Your task to perform on an android device: Go to Yahoo.com Image 0: 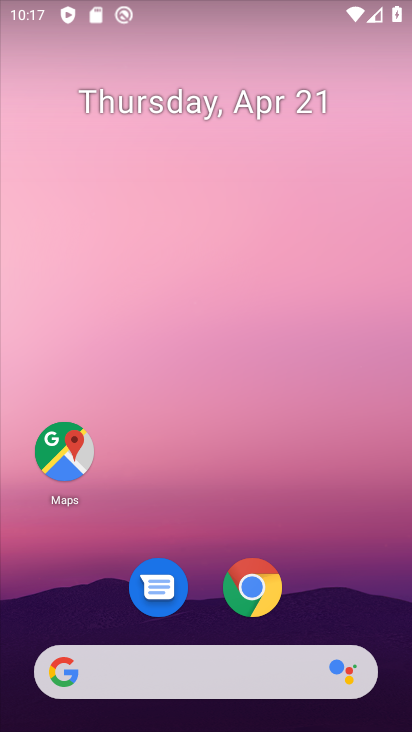
Step 0: drag from (230, 672) to (179, 33)
Your task to perform on an android device: Go to Yahoo.com Image 1: 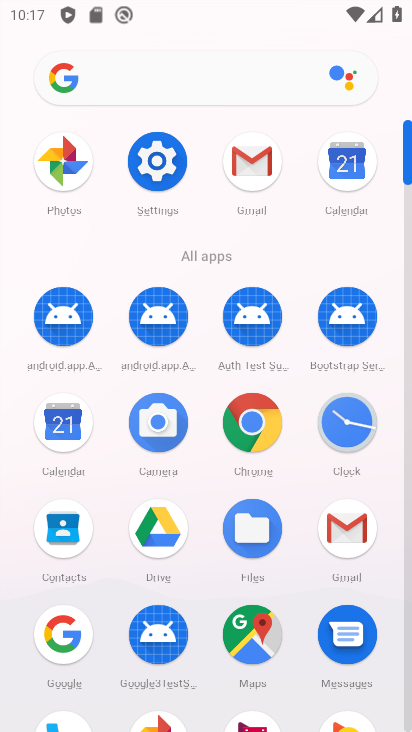
Step 1: click (259, 449)
Your task to perform on an android device: Go to Yahoo.com Image 2: 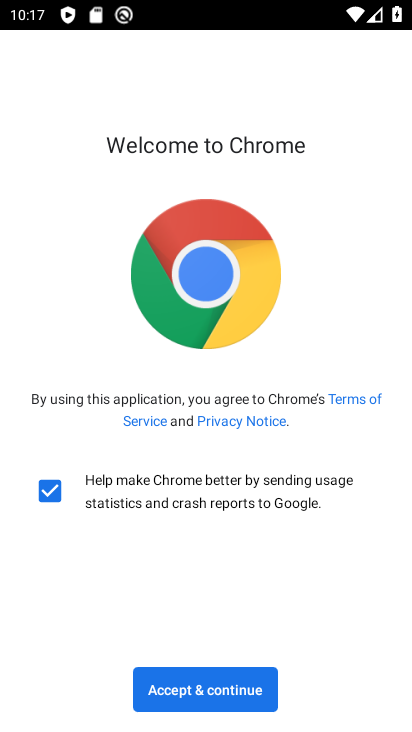
Step 2: click (248, 697)
Your task to perform on an android device: Go to Yahoo.com Image 3: 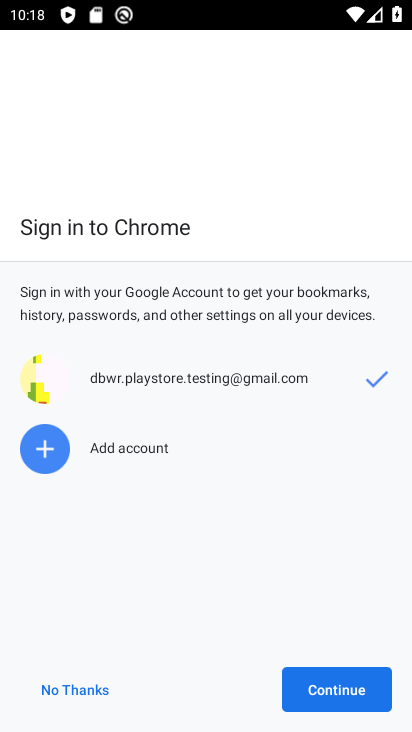
Step 3: click (337, 670)
Your task to perform on an android device: Go to Yahoo.com Image 4: 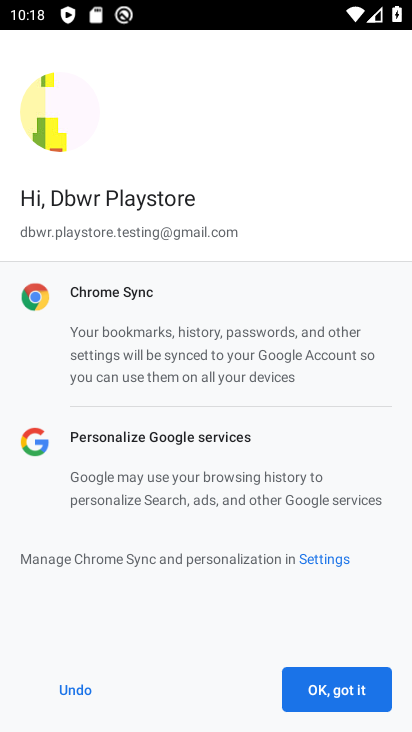
Step 4: click (337, 670)
Your task to perform on an android device: Go to Yahoo.com Image 5: 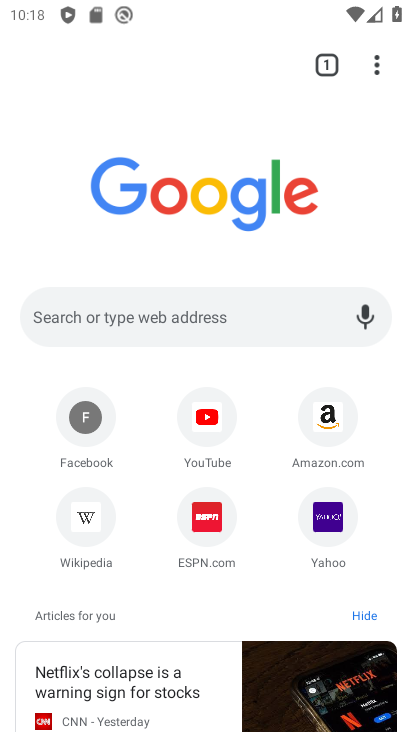
Step 5: click (342, 497)
Your task to perform on an android device: Go to Yahoo.com Image 6: 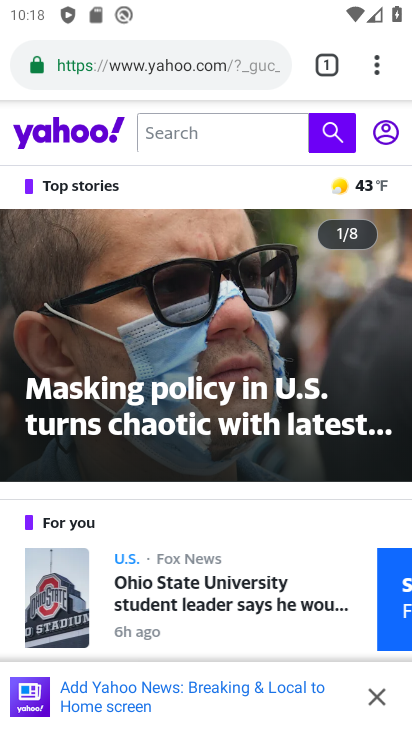
Step 6: task complete